Your task to perform on an android device: clear all cookies in the chrome app Image 0: 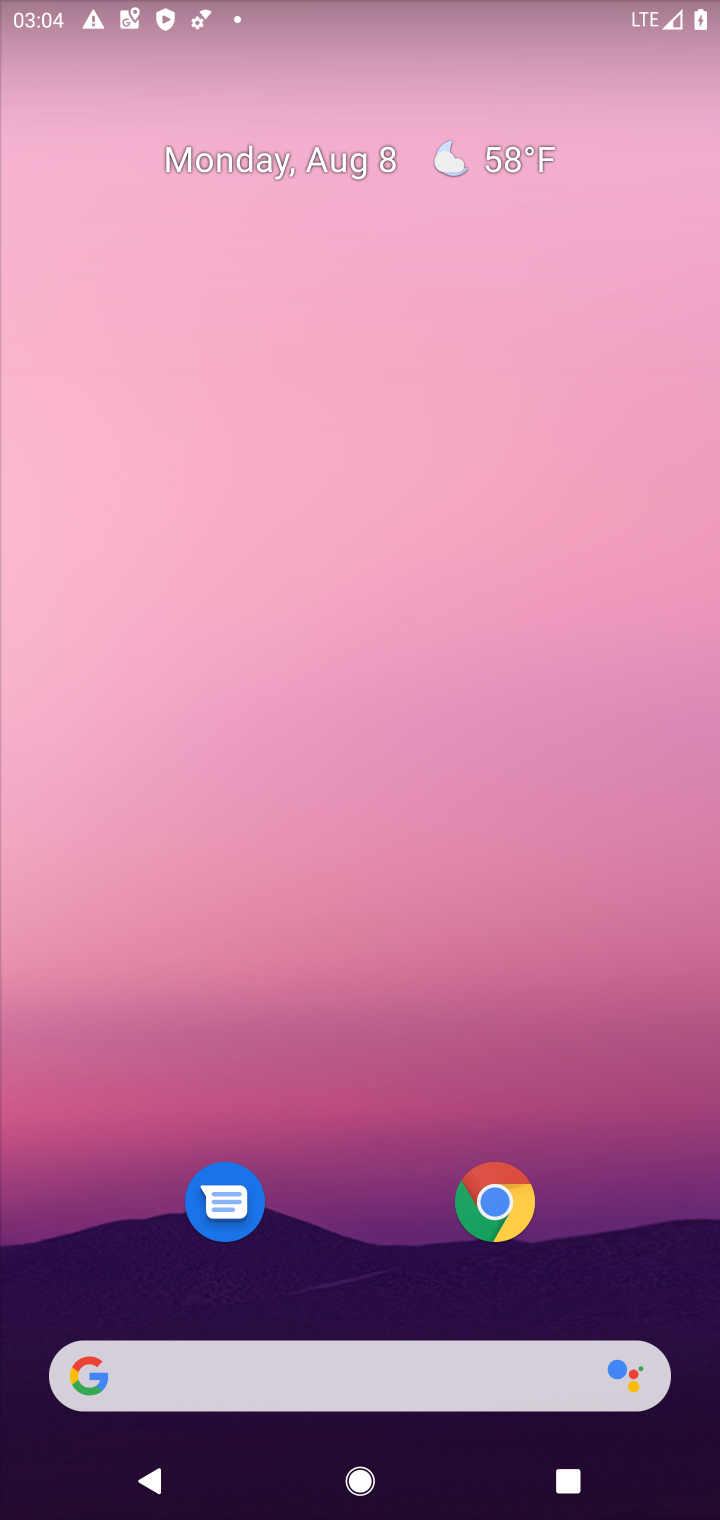
Step 0: click (504, 1202)
Your task to perform on an android device: clear all cookies in the chrome app Image 1: 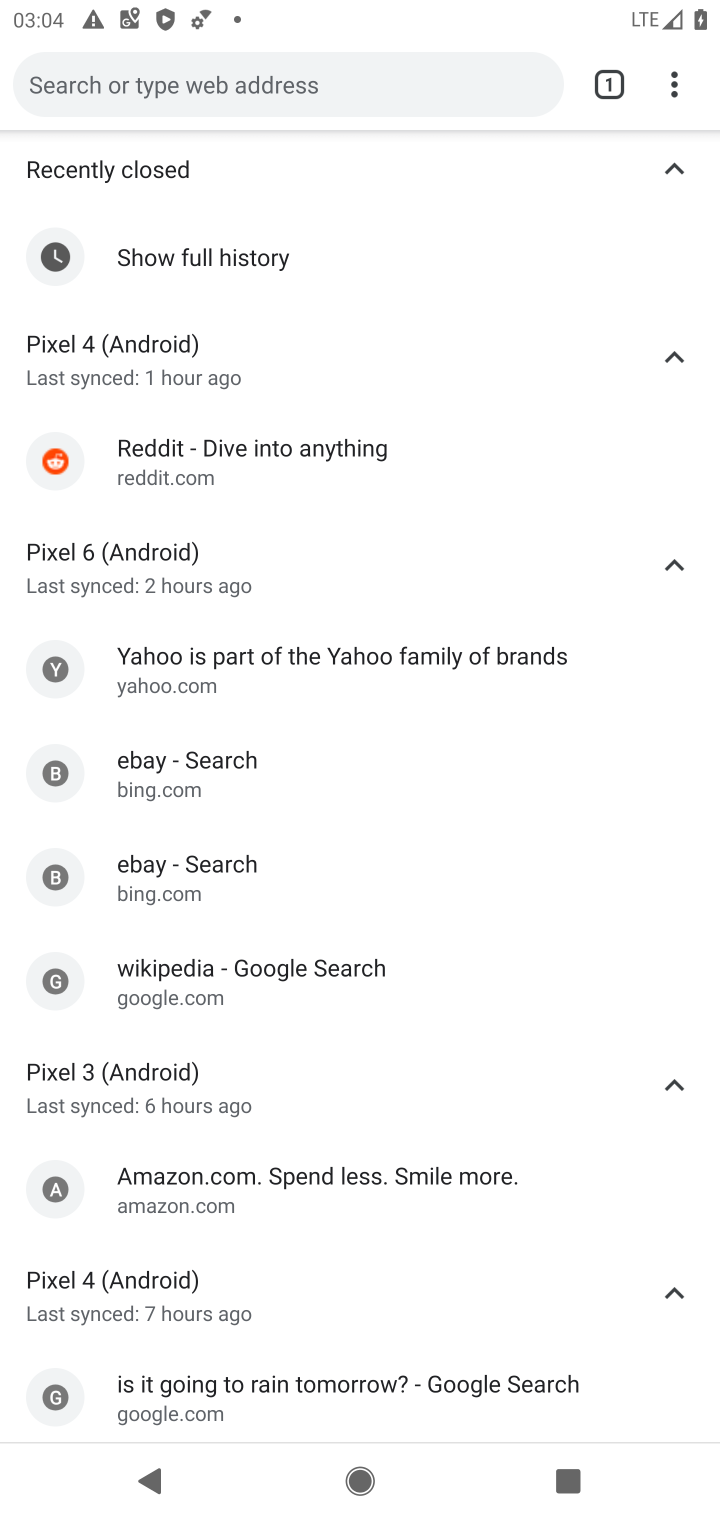
Step 1: click (692, 98)
Your task to perform on an android device: clear all cookies in the chrome app Image 2: 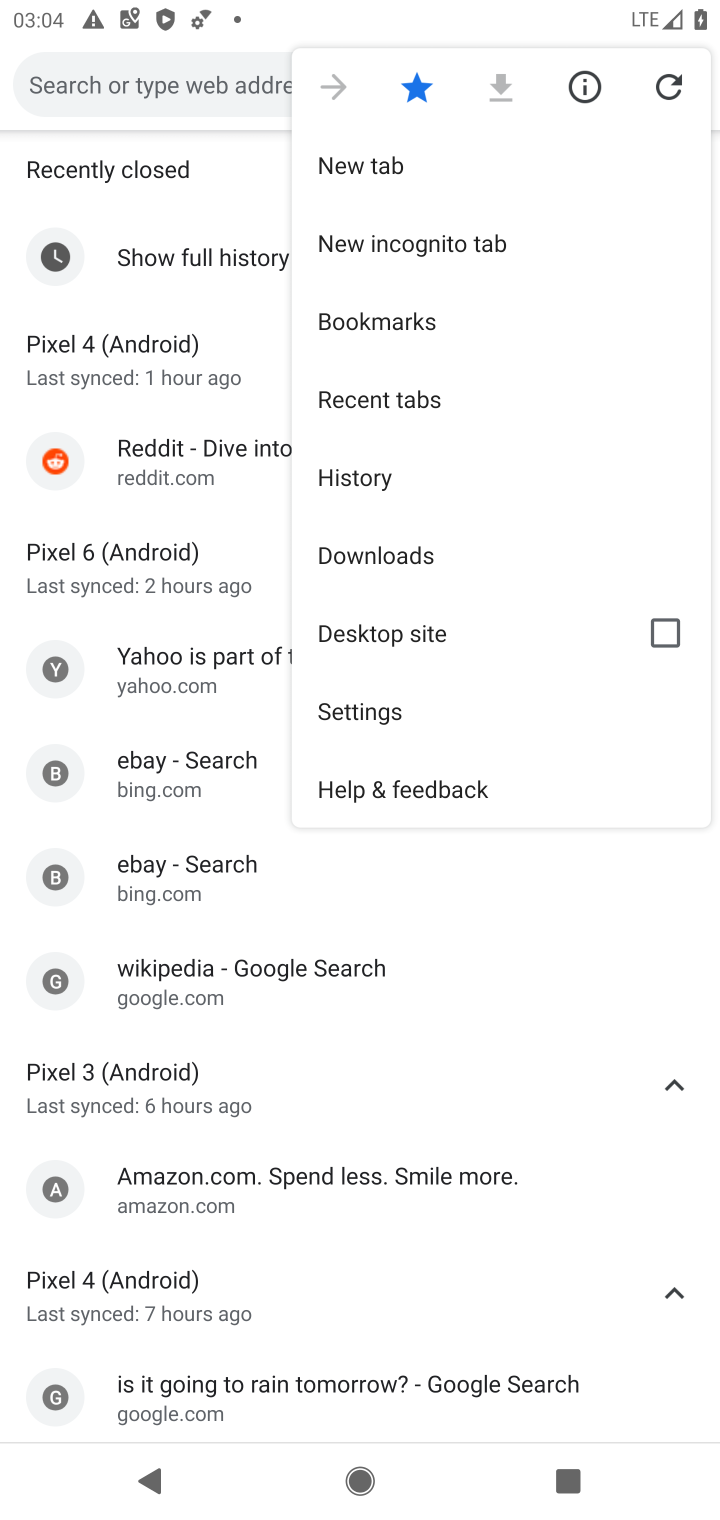
Step 2: click (363, 480)
Your task to perform on an android device: clear all cookies in the chrome app Image 3: 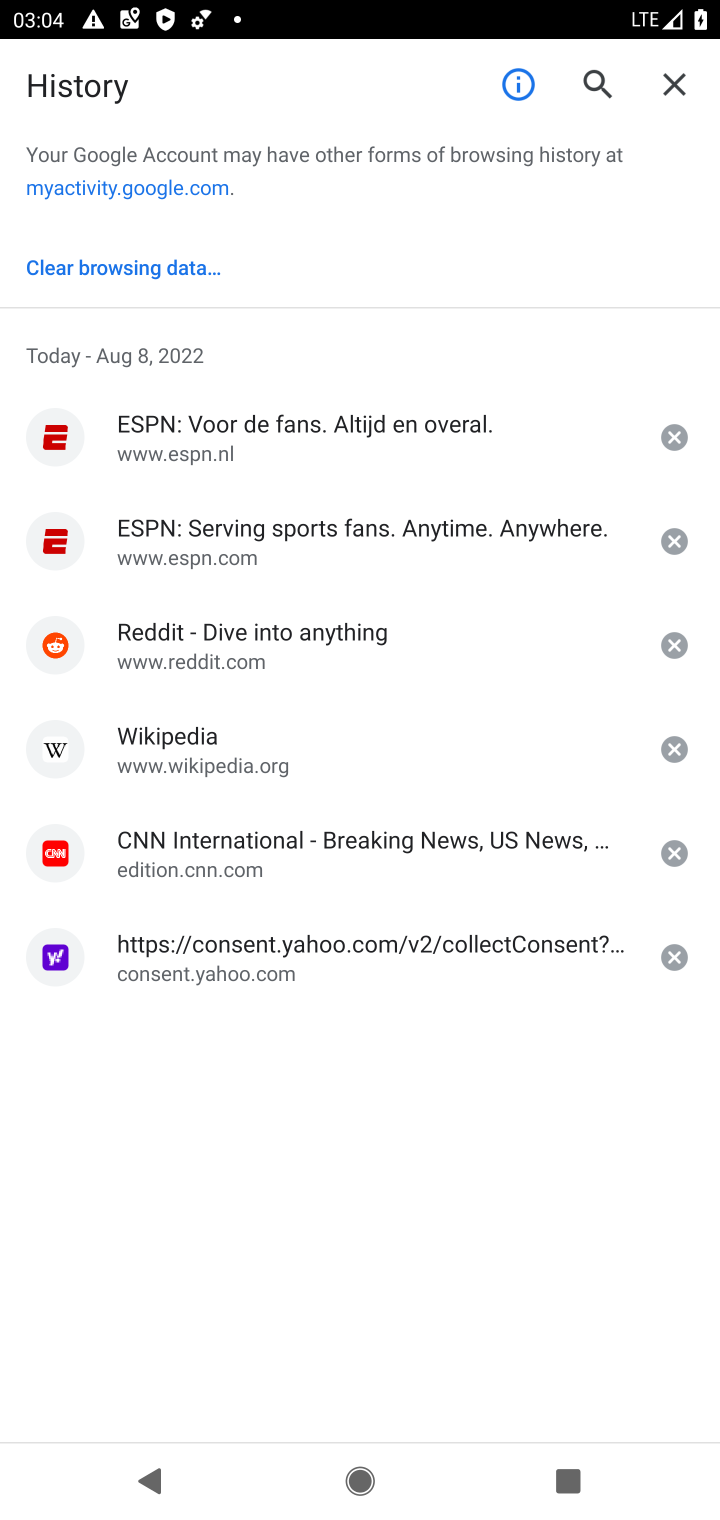
Step 3: click (64, 256)
Your task to perform on an android device: clear all cookies in the chrome app Image 4: 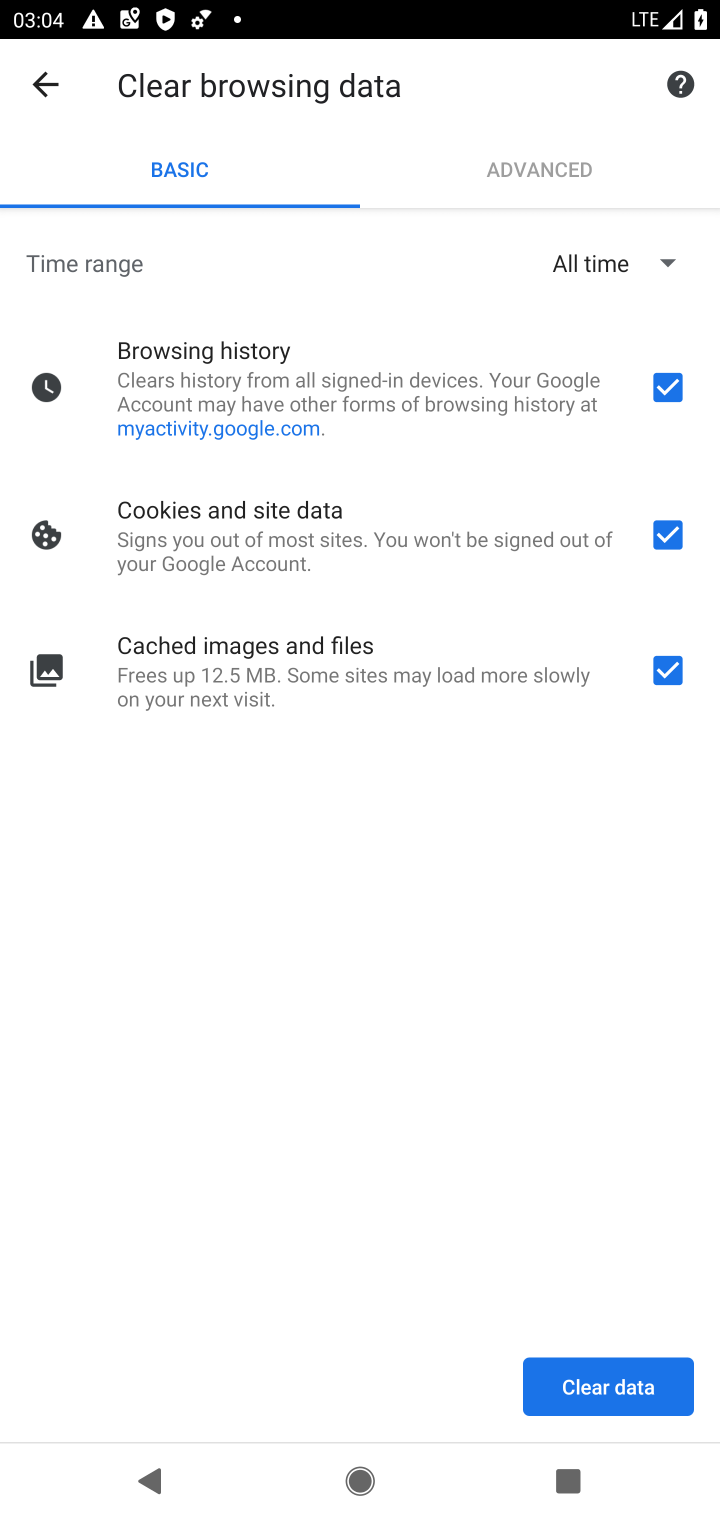
Step 4: click (592, 1384)
Your task to perform on an android device: clear all cookies in the chrome app Image 5: 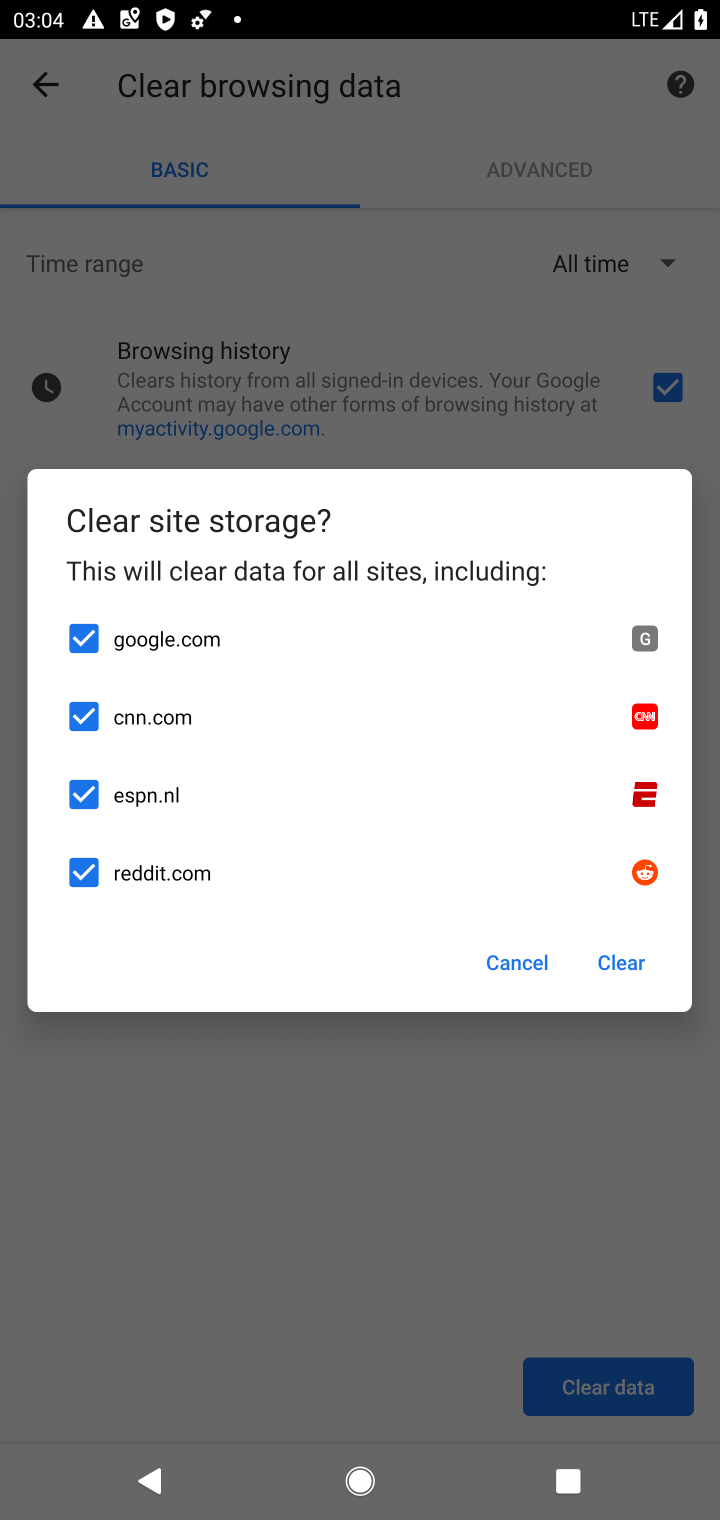
Step 5: click (502, 953)
Your task to perform on an android device: clear all cookies in the chrome app Image 6: 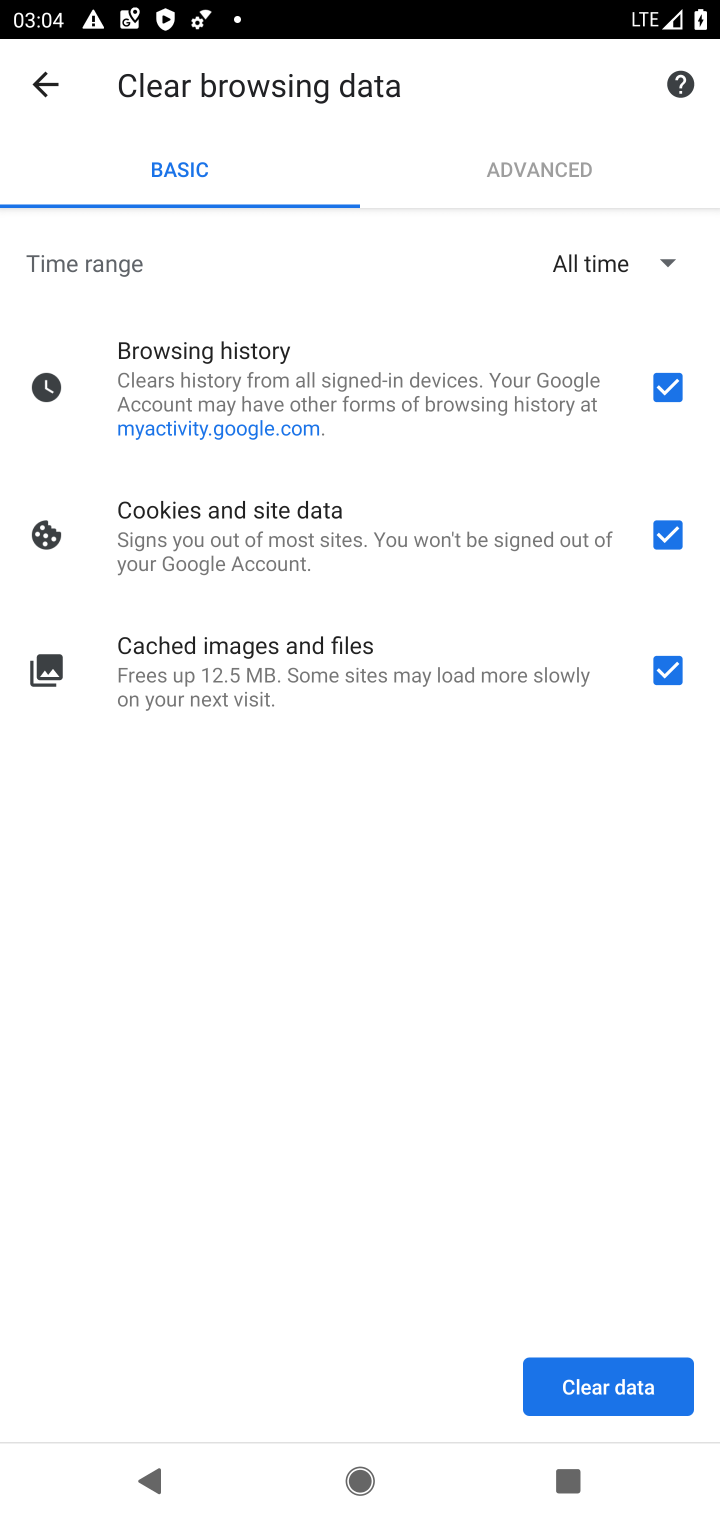
Step 6: click (679, 658)
Your task to perform on an android device: clear all cookies in the chrome app Image 7: 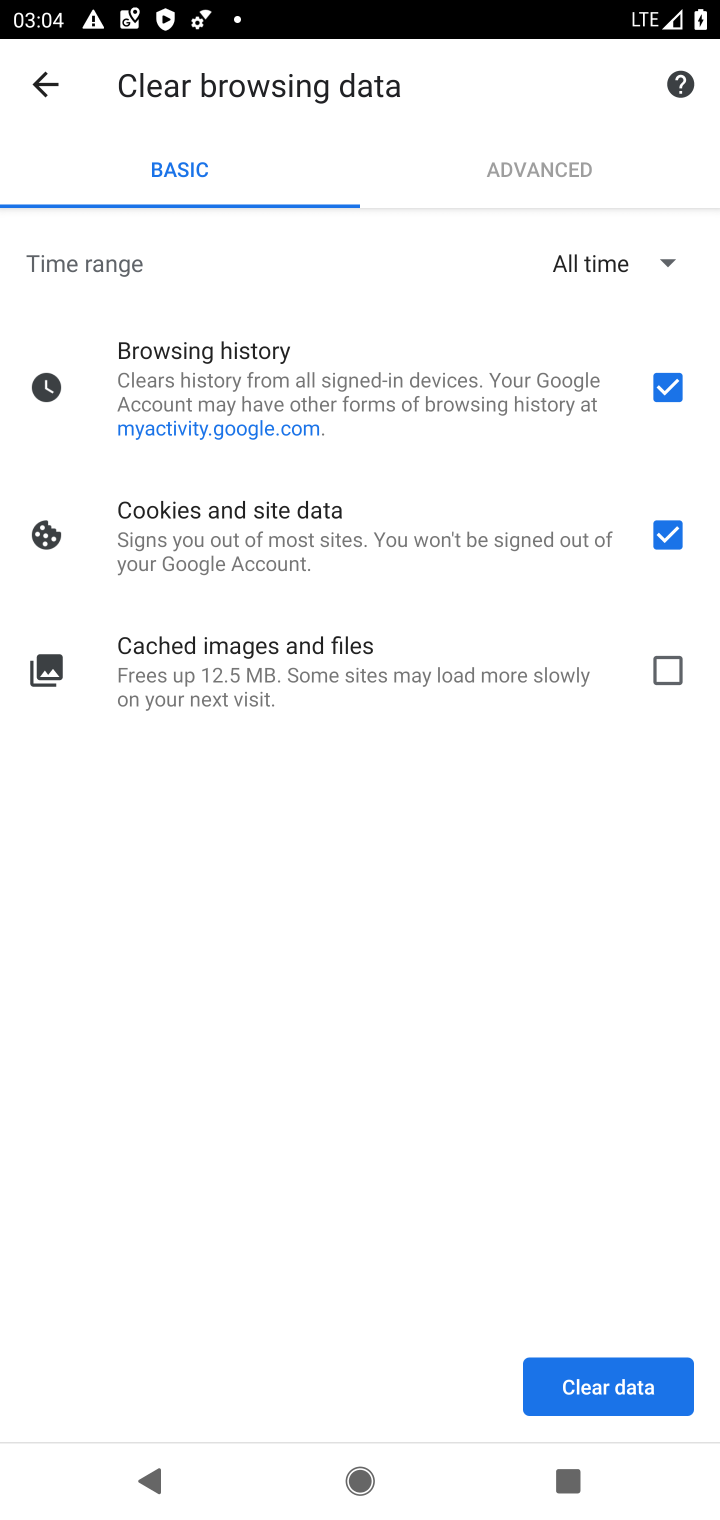
Step 7: click (661, 395)
Your task to perform on an android device: clear all cookies in the chrome app Image 8: 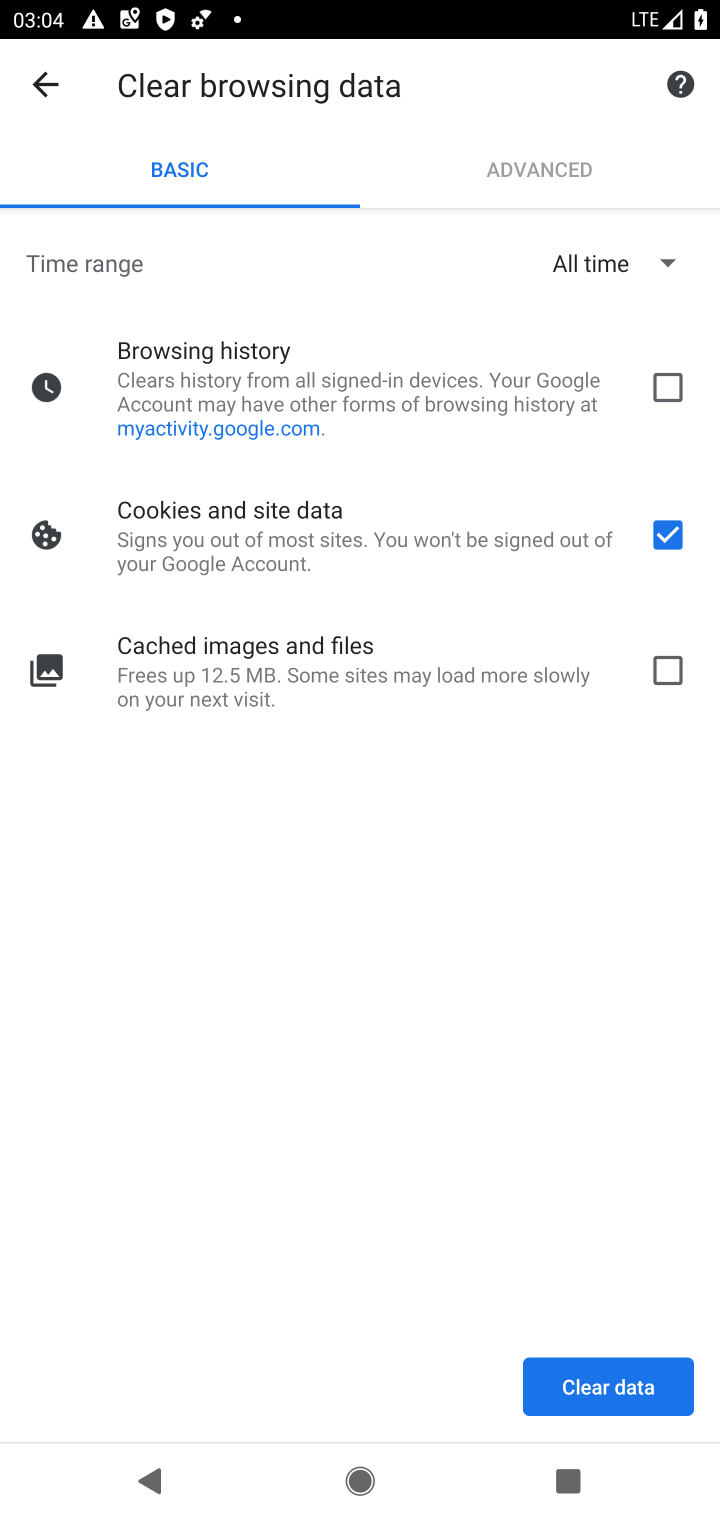
Step 8: click (613, 1377)
Your task to perform on an android device: clear all cookies in the chrome app Image 9: 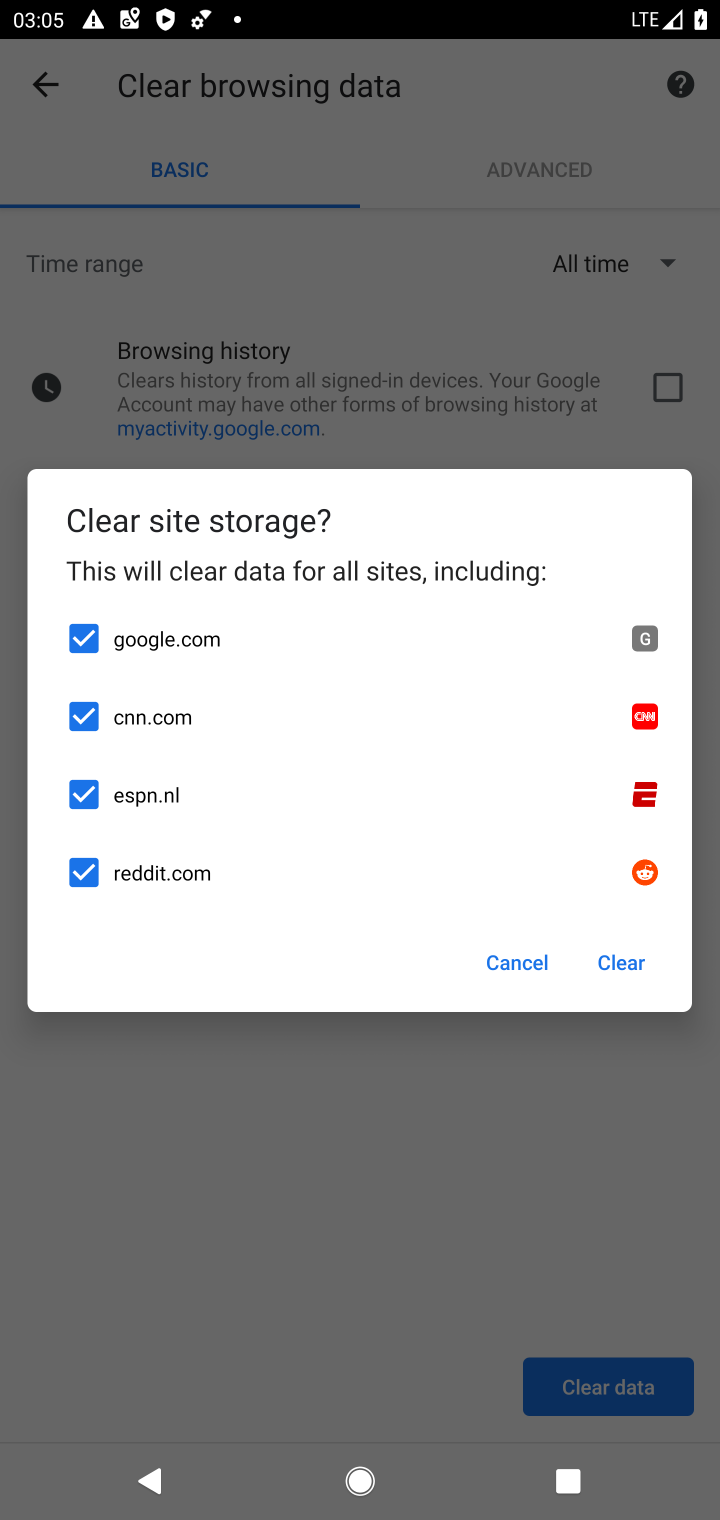
Step 9: click (624, 953)
Your task to perform on an android device: clear all cookies in the chrome app Image 10: 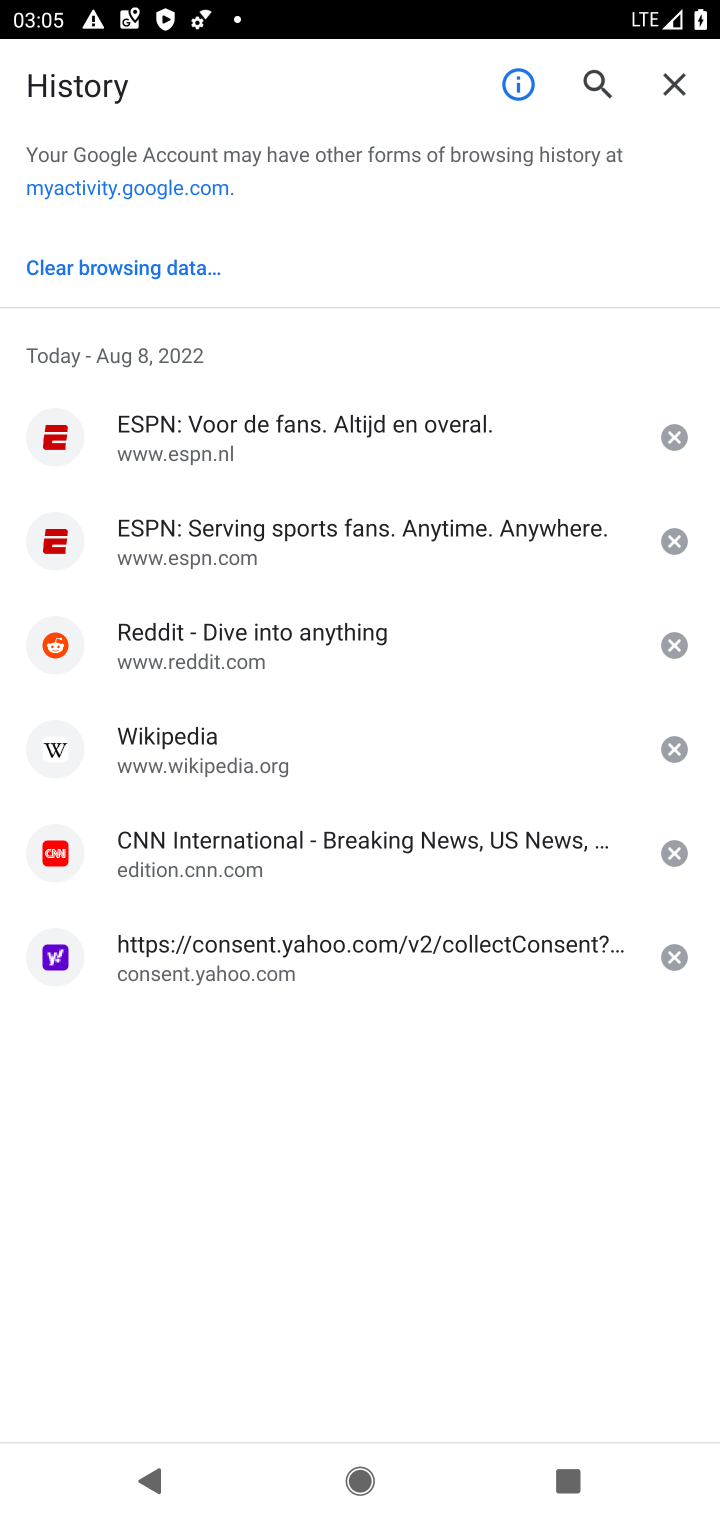
Step 10: task complete